Your task to perform on an android device: toggle sleep mode Image 0: 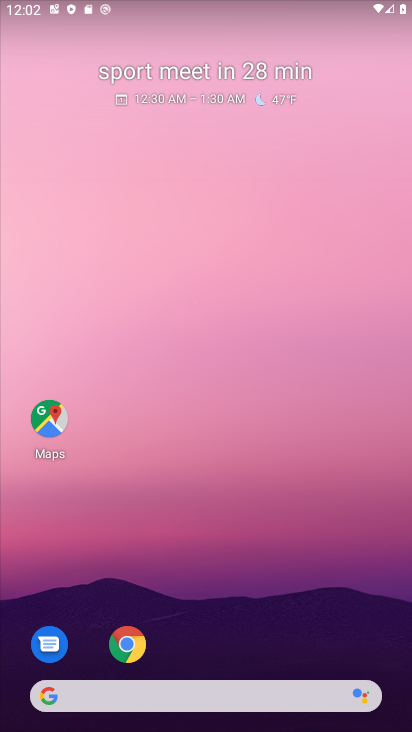
Step 0: drag from (38, 555) to (320, 120)
Your task to perform on an android device: toggle sleep mode Image 1: 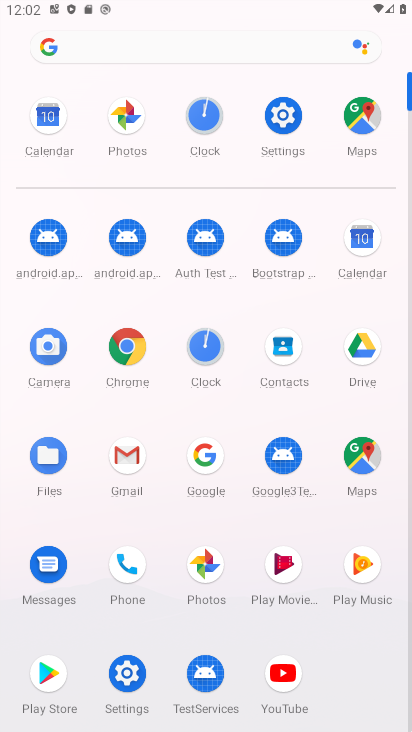
Step 1: click (280, 124)
Your task to perform on an android device: toggle sleep mode Image 2: 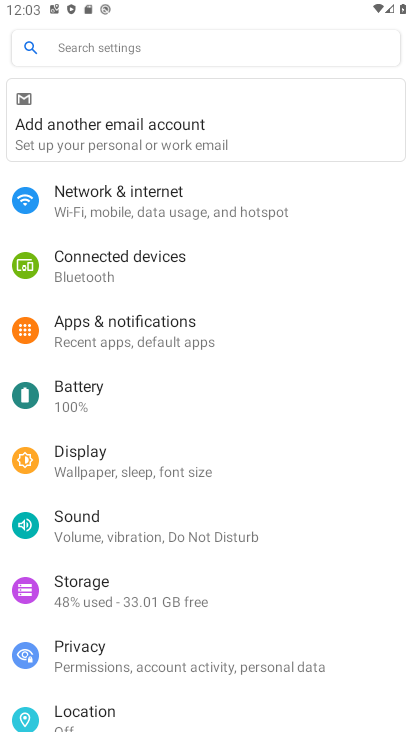
Step 2: click (163, 467)
Your task to perform on an android device: toggle sleep mode Image 3: 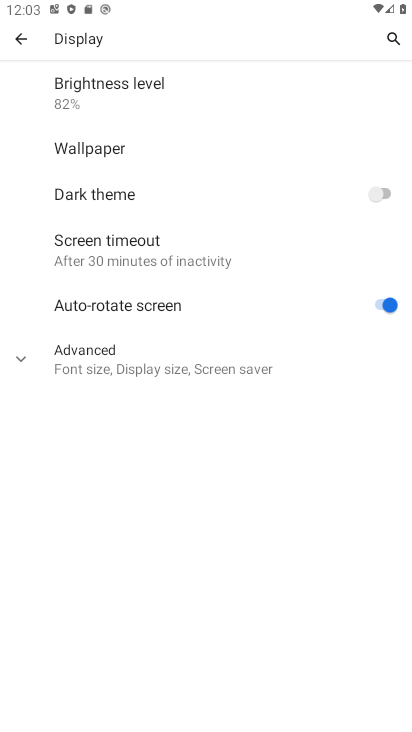
Step 3: task complete